Your task to perform on an android device: turn pop-ups on in chrome Image 0: 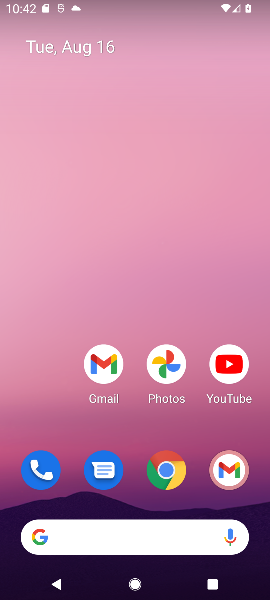
Step 0: click (172, 466)
Your task to perform on an android device: turn pop-ups on in chrome Image 1: 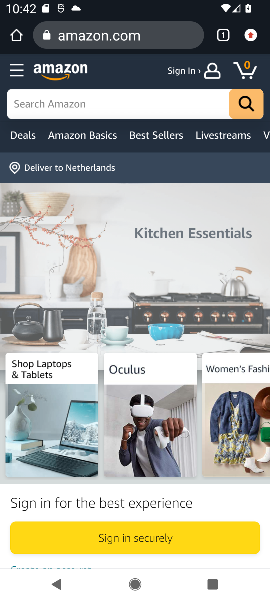
Step 1: press back button
Your task to perform on an android device: turn pop-ups on in chrome Image 2: 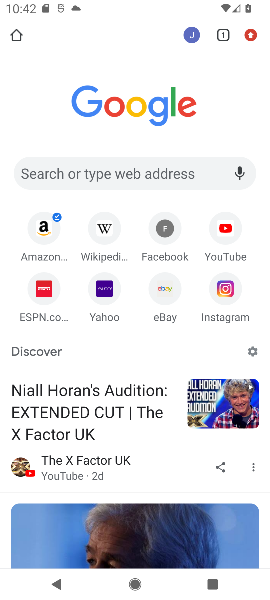
Step 2: click (252, 32)
Your task to perform on an android device: turn pop-ups on in chrome Image 3: 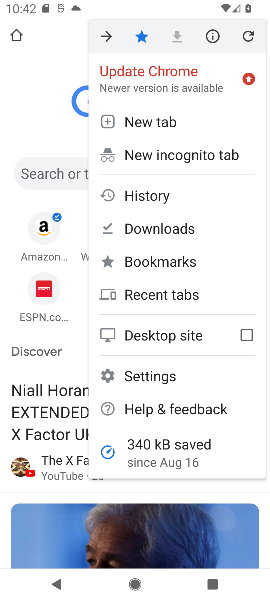
Step 3: click (163, 372)
Your task to perform on an android device: turn pop-ups on in chrome Image 4: 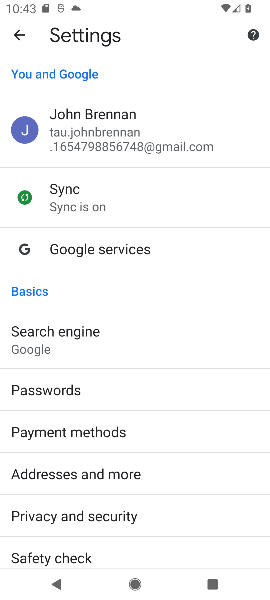
Step 4: drag from (142, 471) to (176, 57)
Your task to perform on an android device: turn pop-ups on in chrome Image 5: 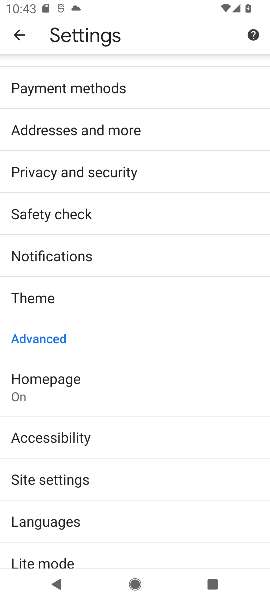
Step 5: click (84, 483)
Your task to perform on an android device: turn pop-ups on in chrome Image 6: 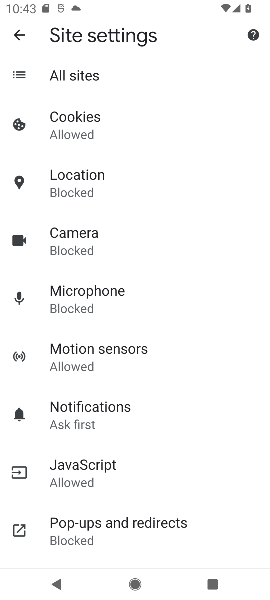
Step 6: click (109, 523)
Your task to perform on an android device: turn pop-ups on in chrome Image 7: 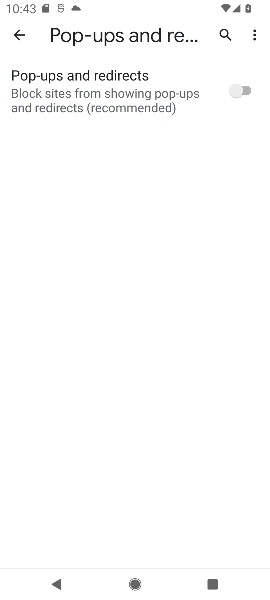
Step 7: click (241, 88)
Your task to perform on an android device: turn pop-ups on in chrome Image 8: 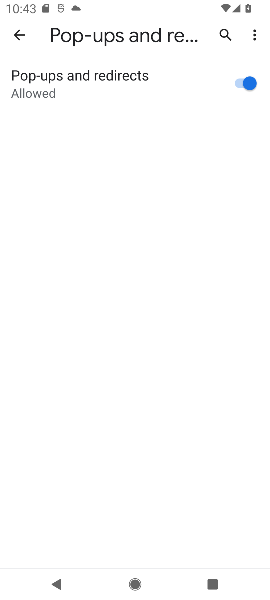
Step 8: task complete